Your task to perform on an android device: Open calendar and show me the third week of next month Image 0: 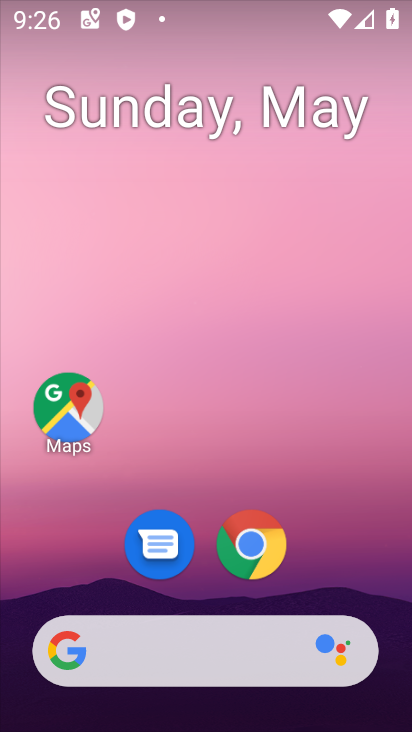
Step 0: drag from (344, 557) to (355, 95)
Your task to perform on an android device: Open calendar and show me the third week of next month Image 1: 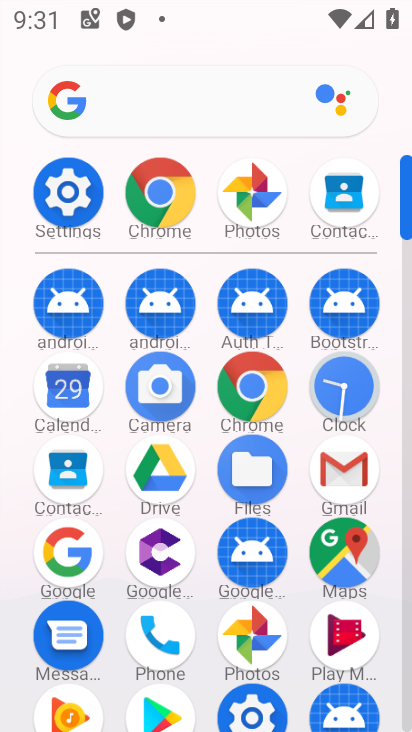
Step 1: click (73, 387)
Your task to perform on an android device: Open calendar and show me the third week of next month Image 2: 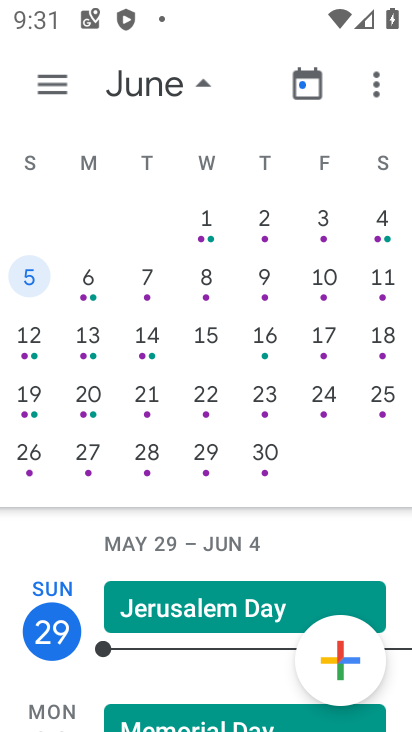
Step 2: drag from (407, 313) to (33, 155)
Your task to perform on an android device: Open calendar and show me the third week of next month Image 3: 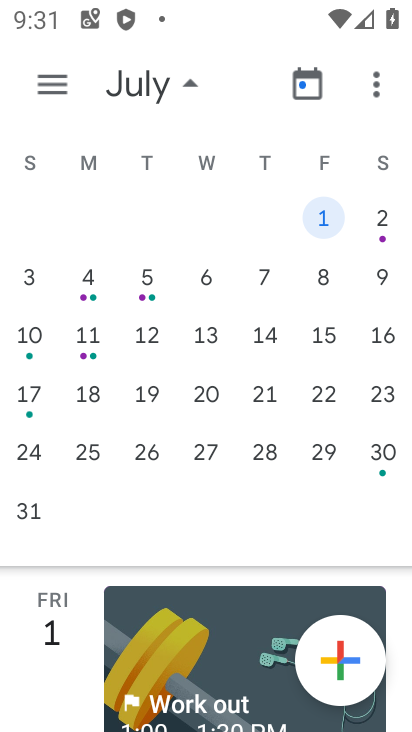
Step 3: click (268, 402)
Your task to perform on an android device: Open calendar and show me the third week of next month Image 4: 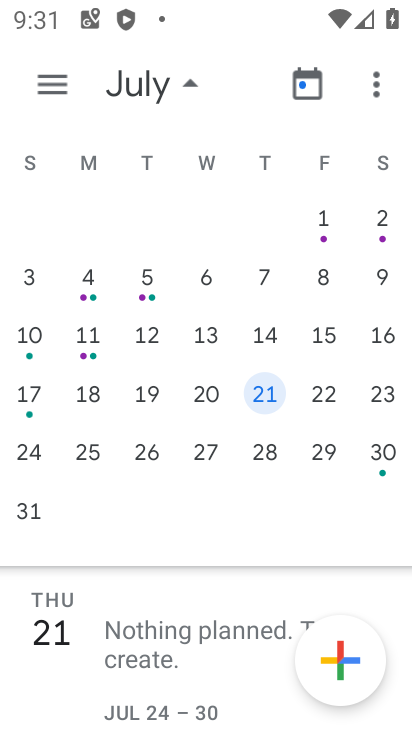
Step 4: task complete